Your task to perform on an android device: read, delete, or share a saved page in the chrome app Image 0: 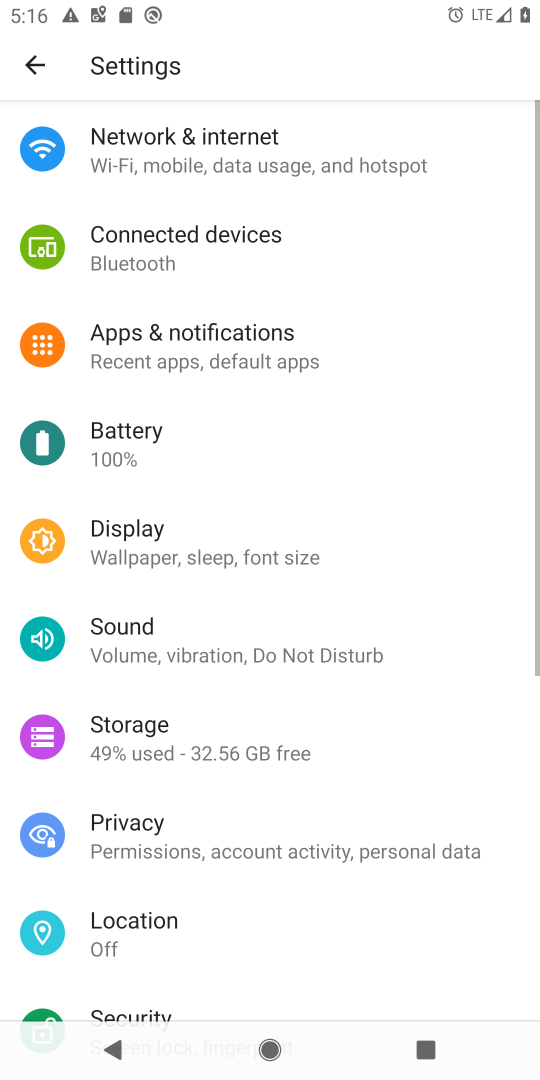
Step 0: press back button
Your task to perform on an android device: read, delete, or share a saved page in the chrome app Image 1: 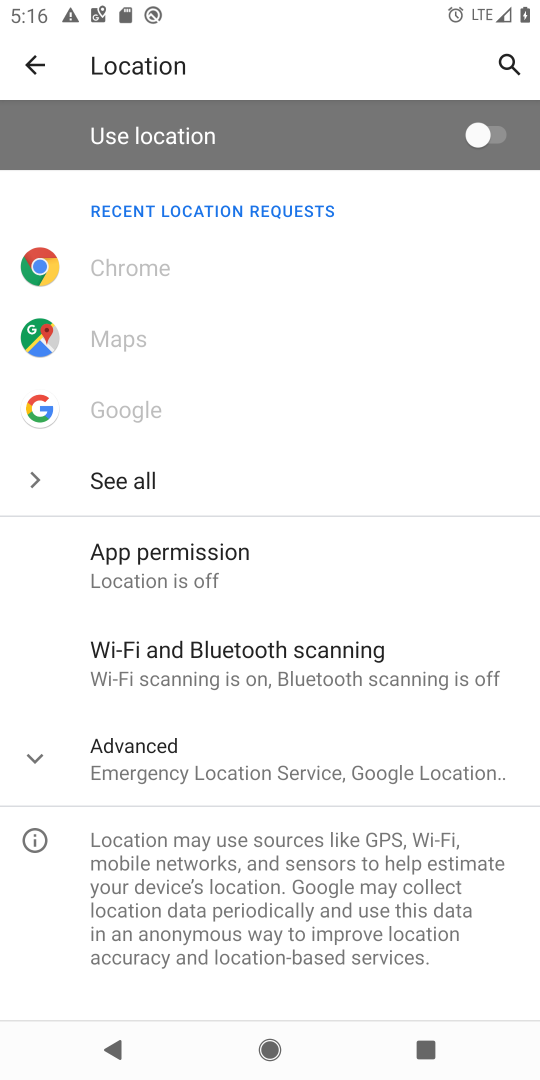
Step 1: press back button
Your task to perform on an android device: read, delete, or share a saved page in the chrome app Image 2: 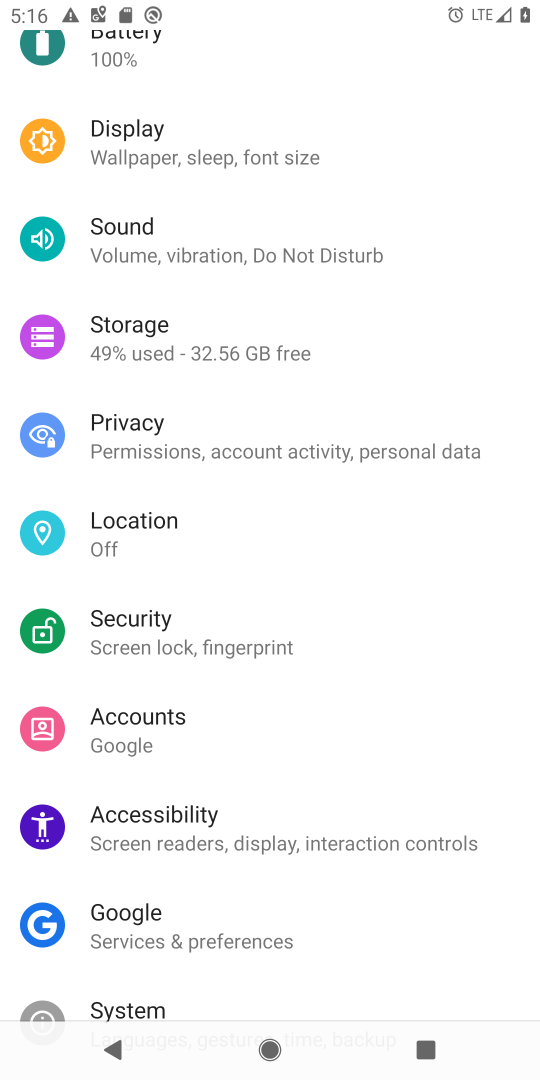
Step 2: press back button
Your task to perform on an android device: read, delete, or share a saved page in the chrome app Image 3: 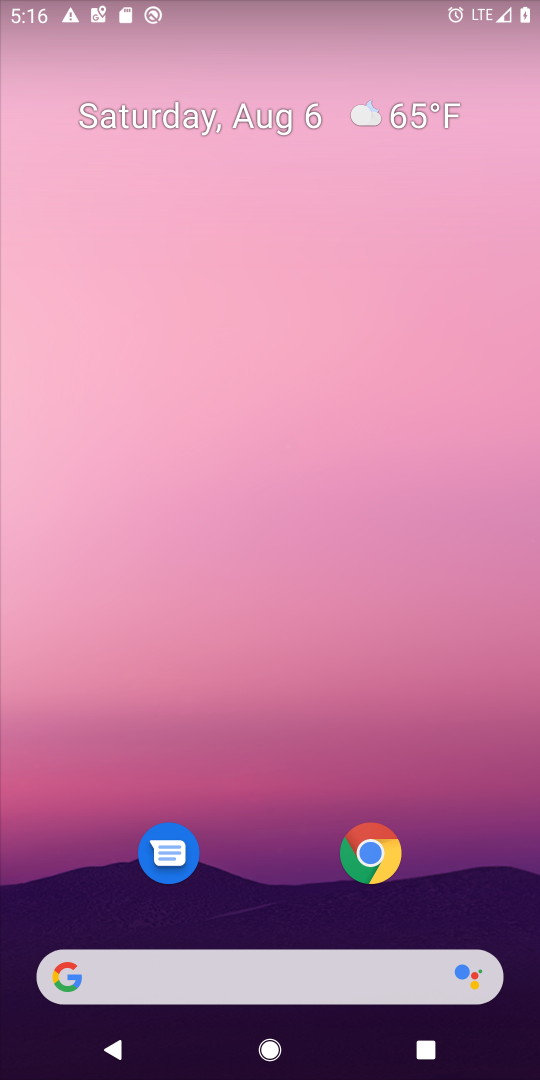
Step 3: click (380, 865)
Your task to perform on an android device: read, delete, or share a saved page in the chrome app Image 4: 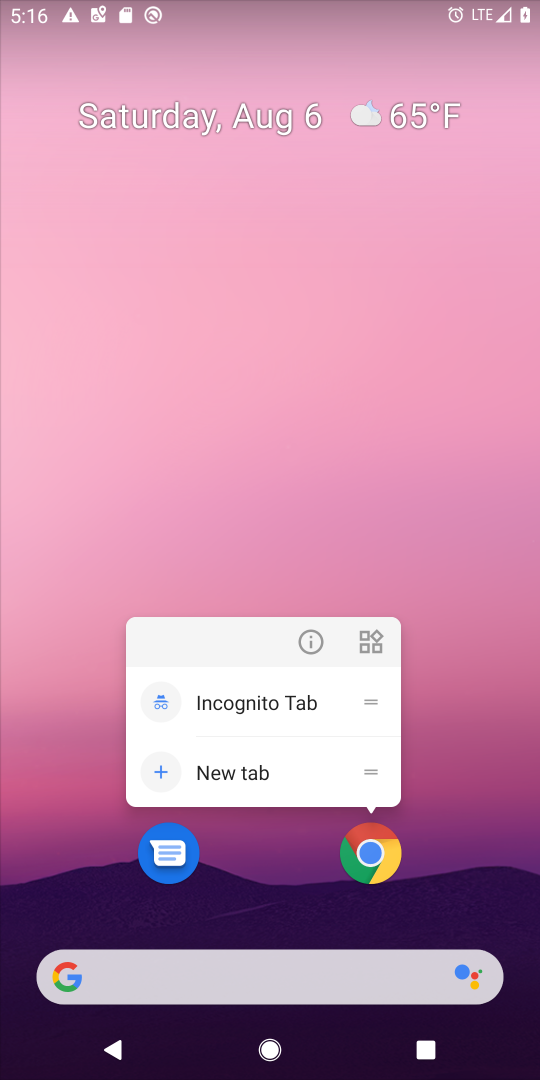
Step 4: click (371, 843)
Your task to perform on an android device: read, delete, or share a saved page in the chrome app Image 5: 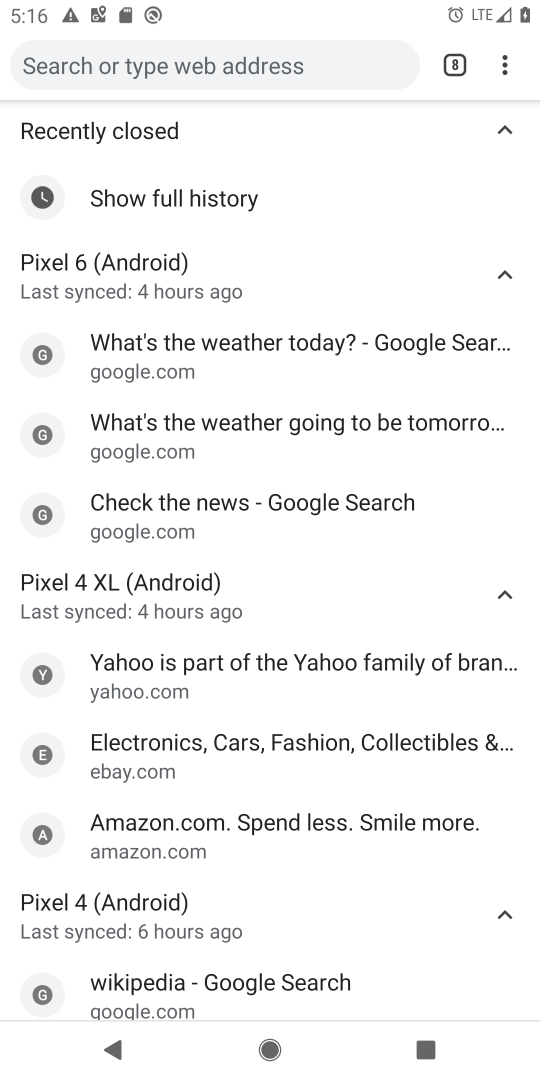
Step 5: task complete